Your task to perform on an android device: turn off smart reply in the gmail app Image 0: 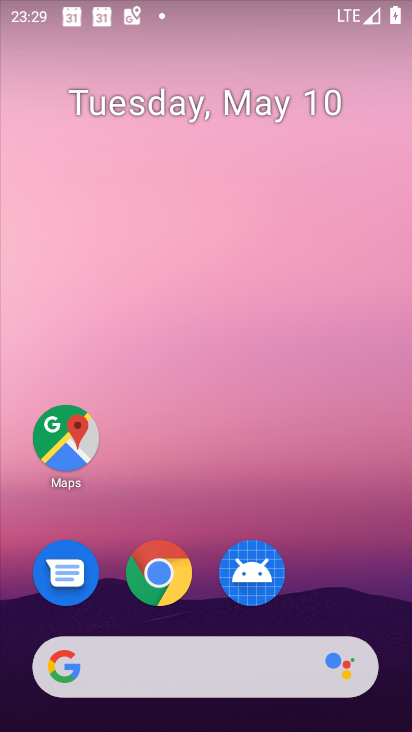
Step 0: drag from (349, 567) to (192, 41)
Your task to perform on an android device: turn off smart reply in the gmail app Image 1: 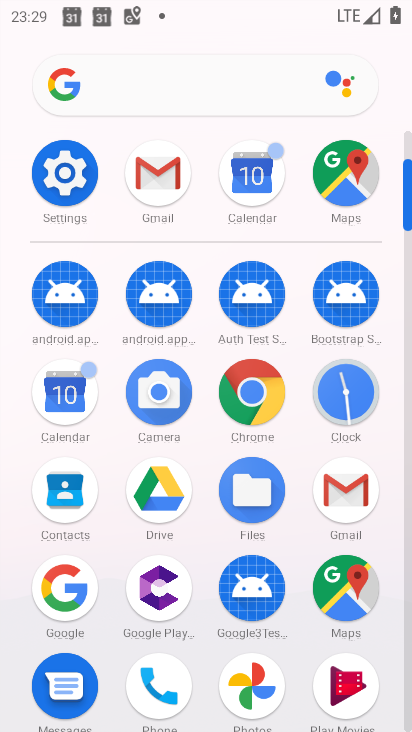
Step 1: click (149, 181)
Your task to perform on an android device: turn off smart reply in the gmail app Image 2: 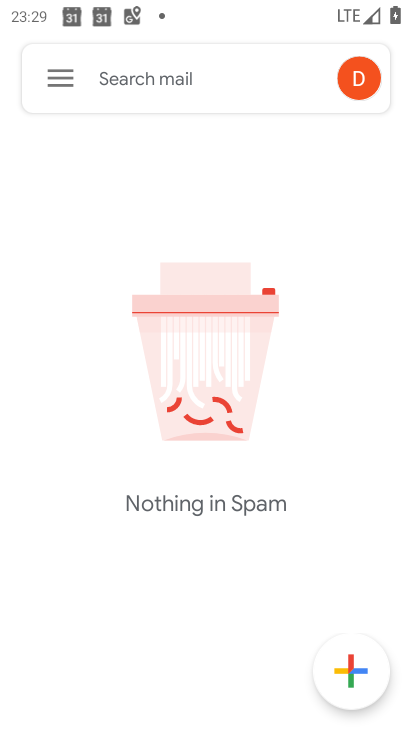
Step 2: click (54, 83)
Your task to perform on an android device: turn off smart reply in the gmail app Image 3: 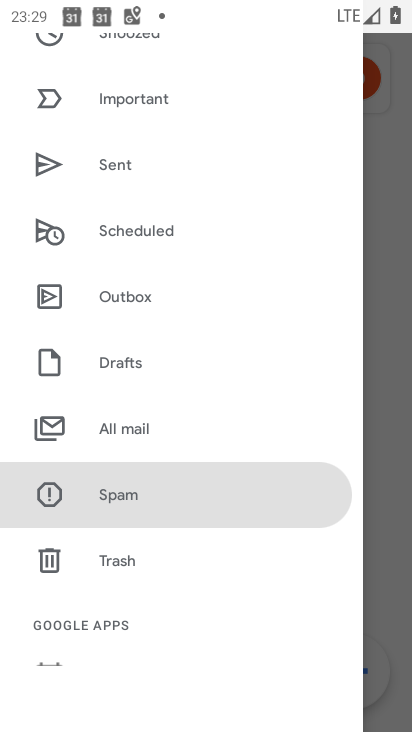
Step 3: drag from (162, 598) to (135, 238)
Your task to perform on an android device: turn off smart reply in the gmail app Image 4: 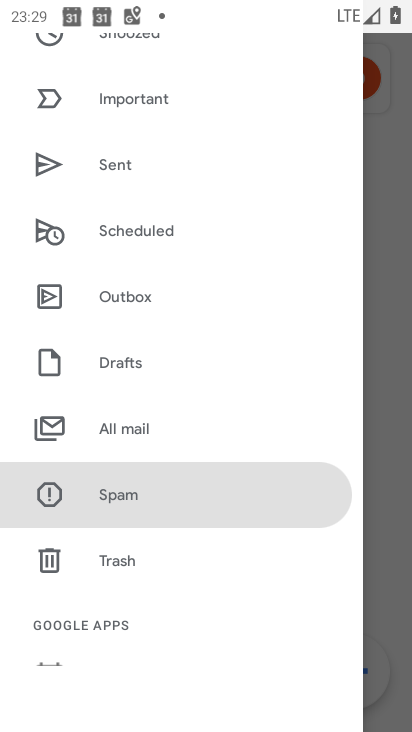
Step 4: drag from (155, 584) to (101, 201)
Your task to perform on an android device: turn off smart reply in the gmail app Image 5: 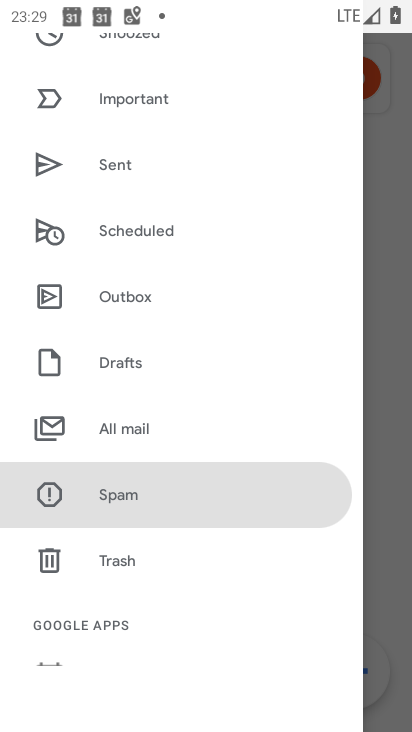
Step 5: drag from (220, 554) to (224, 324)
Your task to perform on an android device: turn off smart reply in the gmail app Image 6: 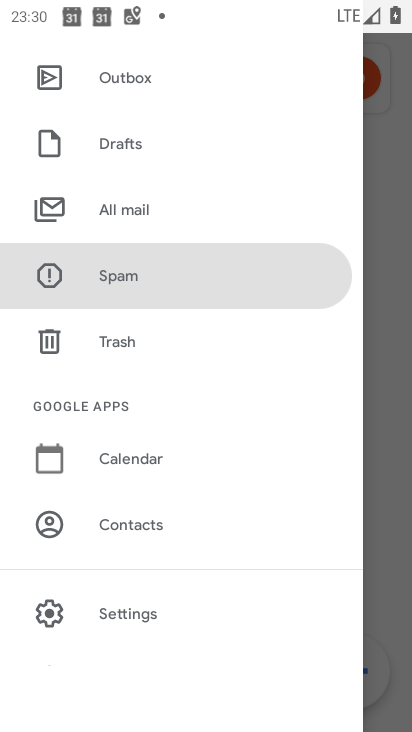
Step 6: click (150, 614)
Your task to perform on an android device: turn off smart reply in the gmail app Image 7: 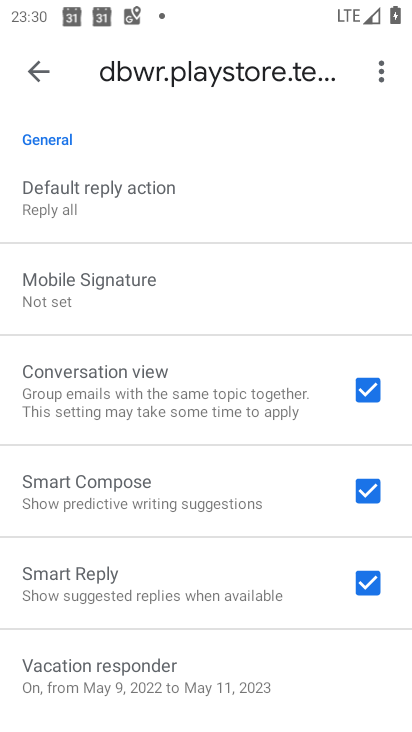
Step 7: click (366, 583)
Your task to perform on an android device: turn off smart reply in the gmail app Image 8: 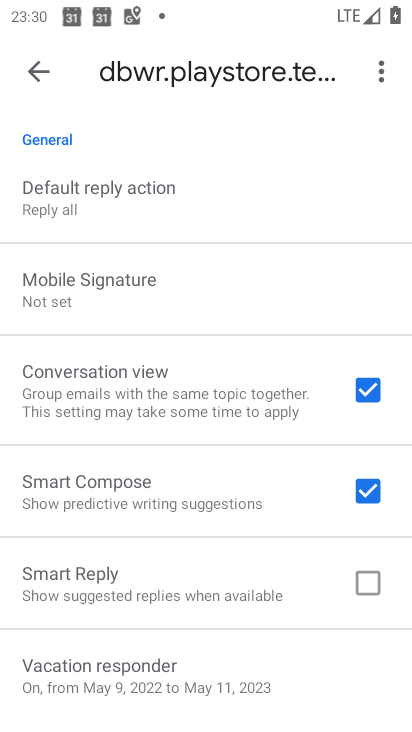
Step 8: task complete